Your task to perform on an android device: turn on improve location accuracy Image 0: 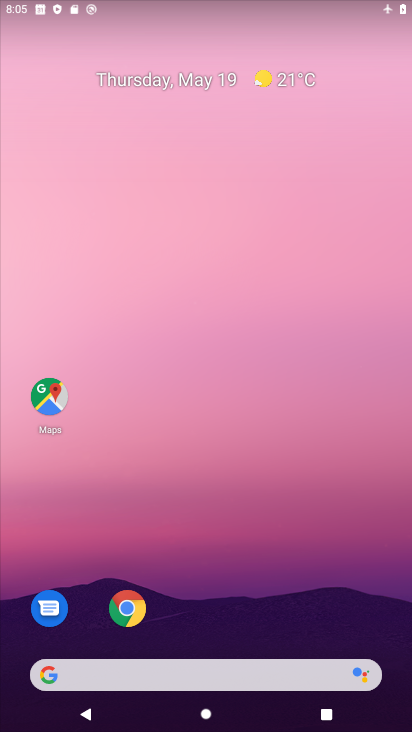
Step 0: drag from (215, 439) to (173, 6)
Your task to perform on an android device: turn on improve location accuracy Image 1: 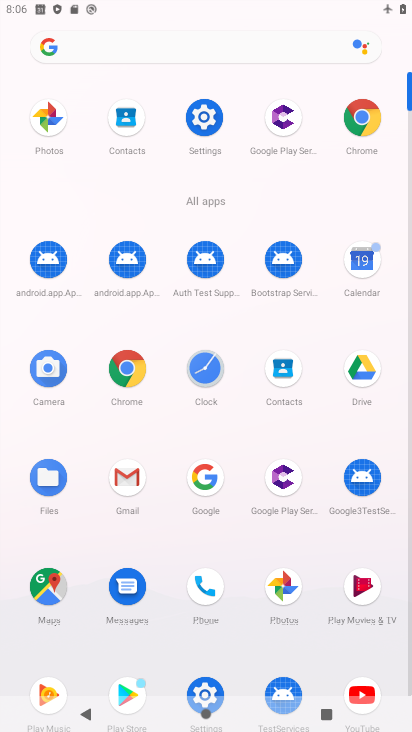
Step 1: click (207, 112)
Your task to perform on an android device: turn on improve location accuracy Image 2: 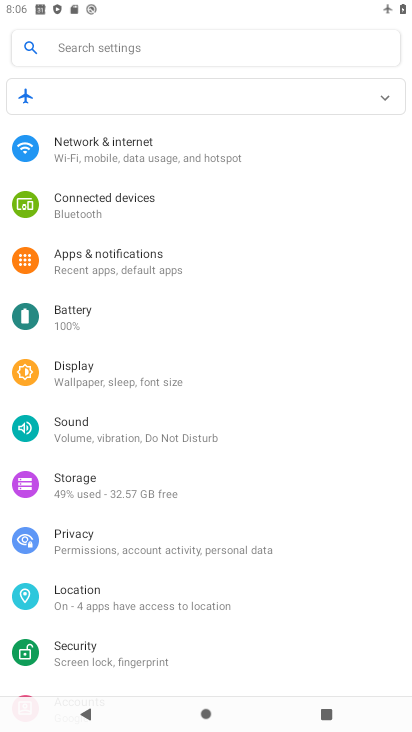
Step 2: click (84, 594)
Your task to perform on an android device: turn on improve location accuracy Image 3: 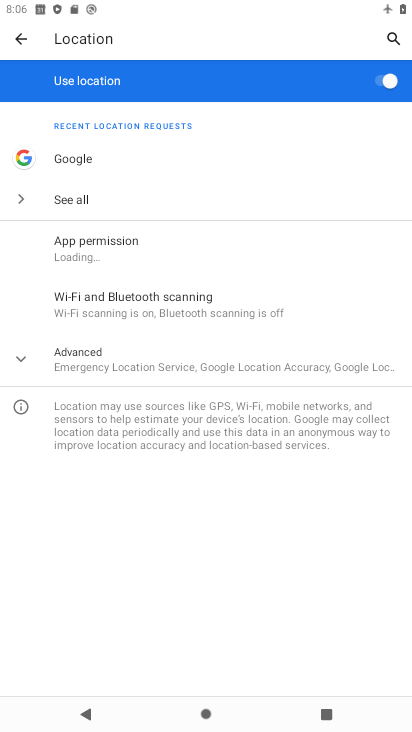
Step 3: click (47, 355)
Your task to perform on an android device: turn on improve location accuracy Image 4: 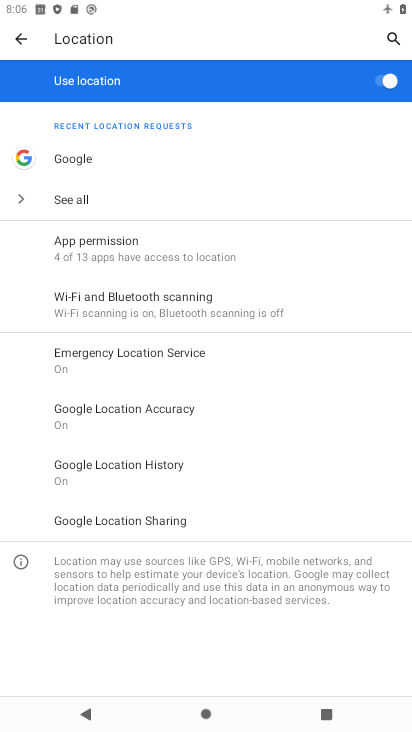
Step 4: click (136, 405)
Your task to perform on an android device: turn on improve location accuracy Image 5: 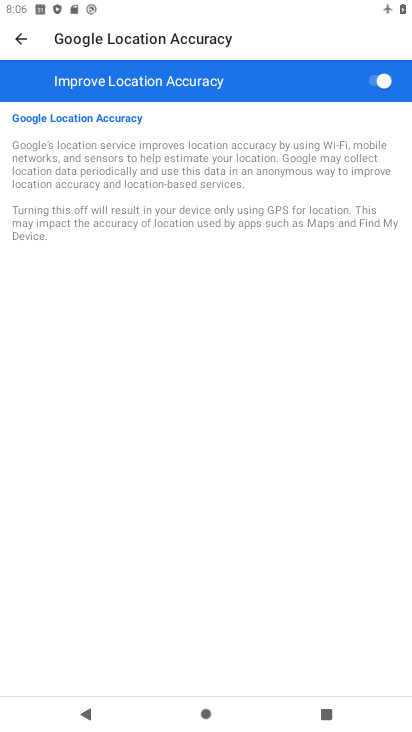
Step 5: task complete